Your task to perform on an android device: delete location history Image 0: 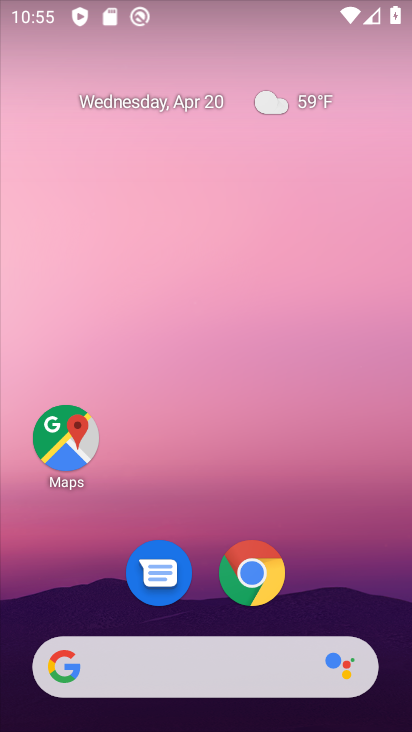
Step 0: drag from (382, 617) to (387, 470)
Your task to perform on an android device: delete location history Image 1: 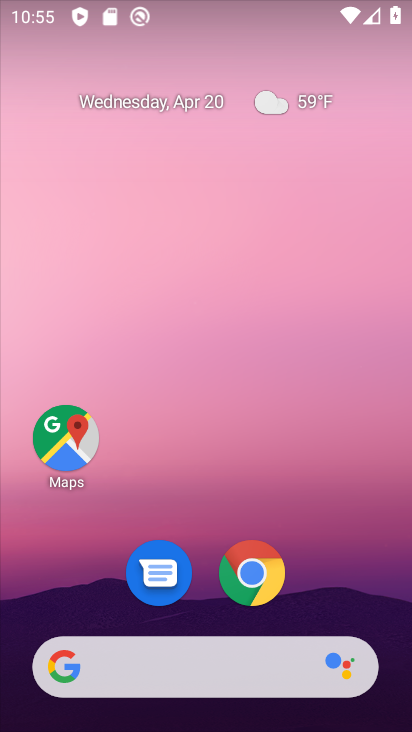
Step 1: click (63, 438)
Your task to perform on an android device: delete location history Image 2: 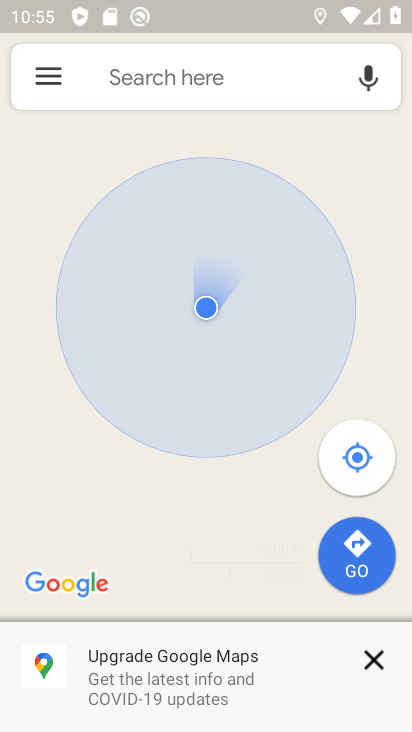
Step 2: click (55, 78)
Your task to perform on an android device: delete location history Image 3: 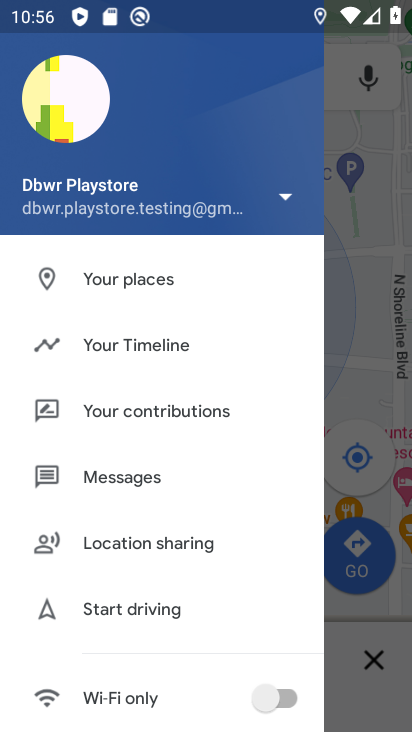
Step 3: click (126, 349)
Your task to perform on an android device: delete location history Image 4: 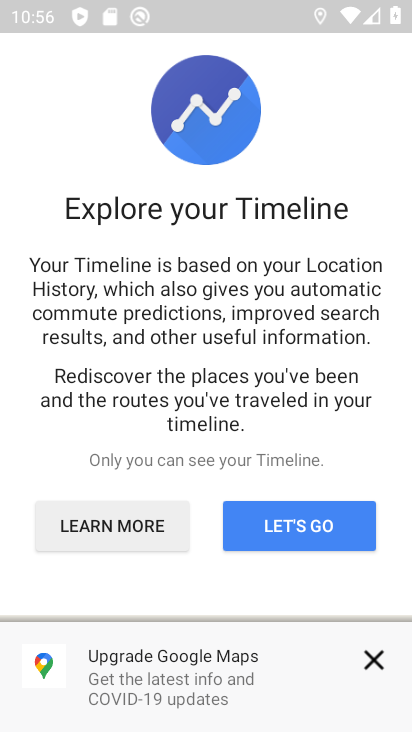
Step 4: click (285, 523)
Your task to perform on an android device: delete location history Image 5: 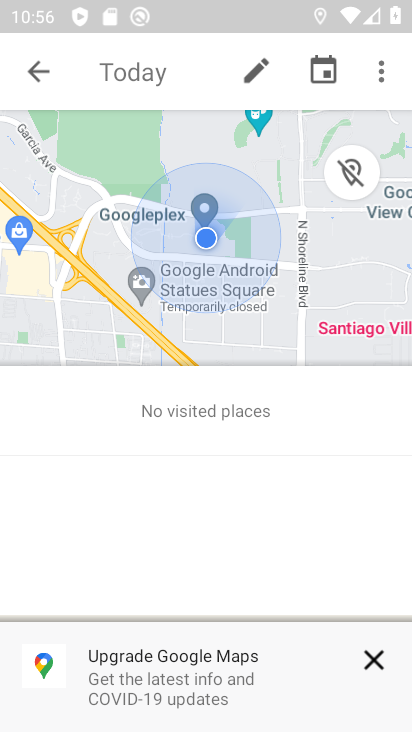
Step 5: click (378, 71)
Your task to perform on an android device: delete location history Image 6: 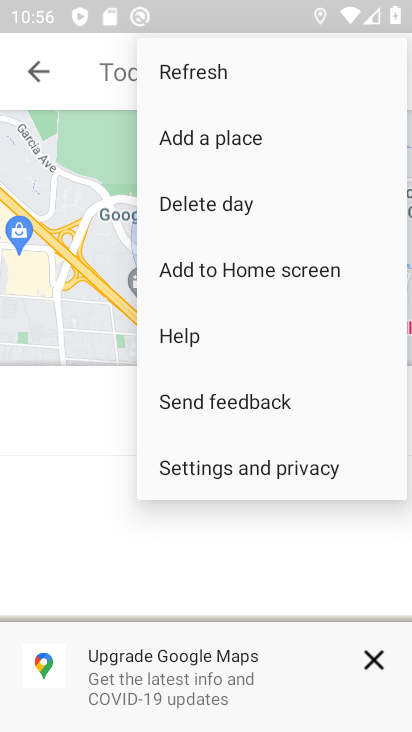
Step 6: click (256, 471)
Your task to perform on an android device: delete location history Image 7: 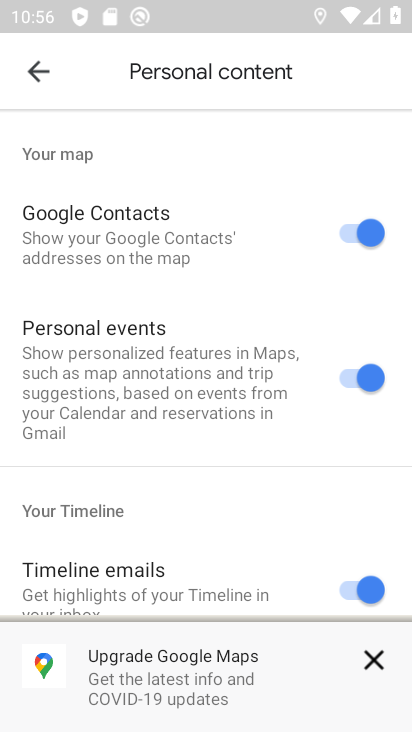
Step 7: drag from (194, 526) to (172, 163)
Your task to perform on an android device: delete location history Image 8: 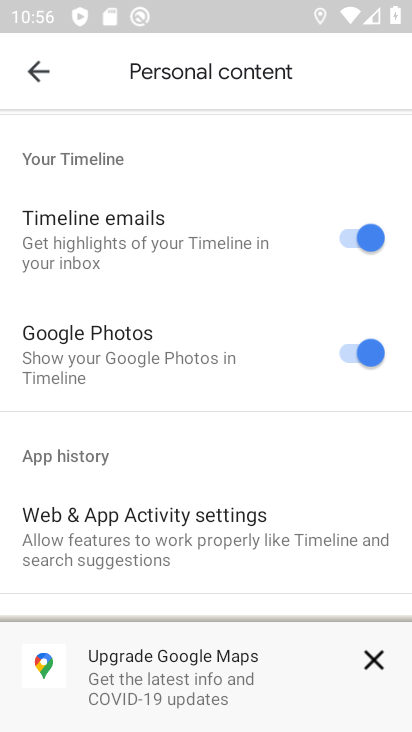
Step 8: drag from (173, 496) to (172, 109)
Your task to perform on an android device: delete location history Image 9: 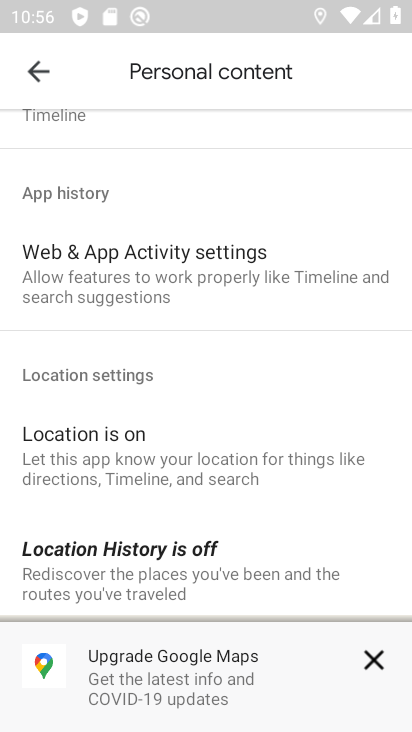
Step 9: drag from (213, 475) to (223, 178)
Your task to perform on an android device: delete location history Image 10: 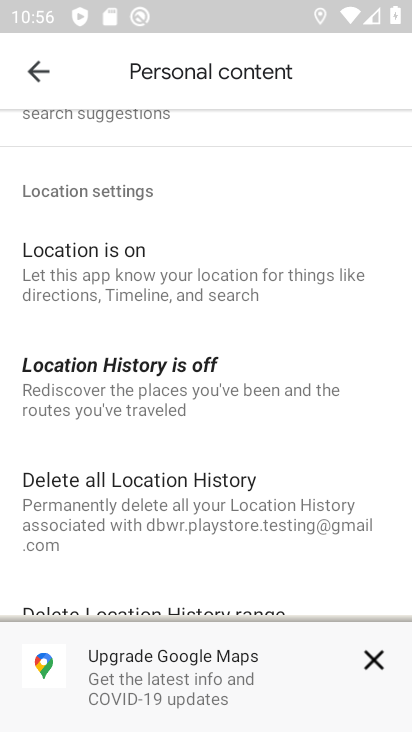
Step 10: click (116, 495)
Your task to perform on an android device: delete location history Image 11: 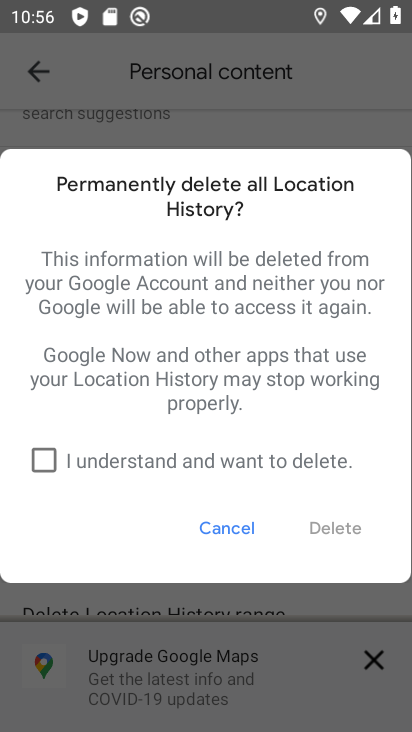
Step 11: click (48, 459)
Your task to perform on an android device: delete location history Image 12: 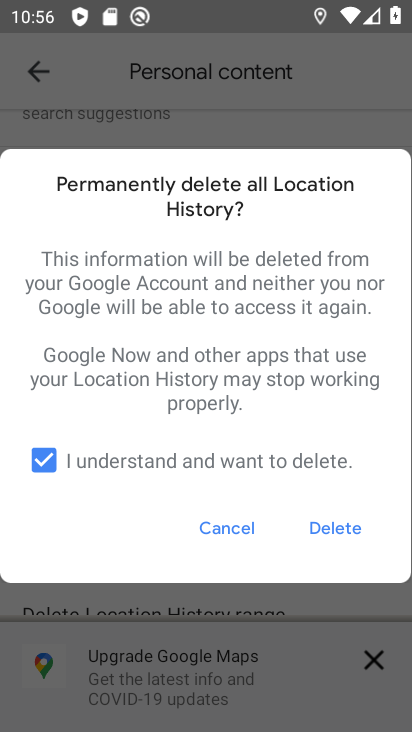
Step 12: click (337, 535)
Your task to perform on an android device: delete location history Image 13: 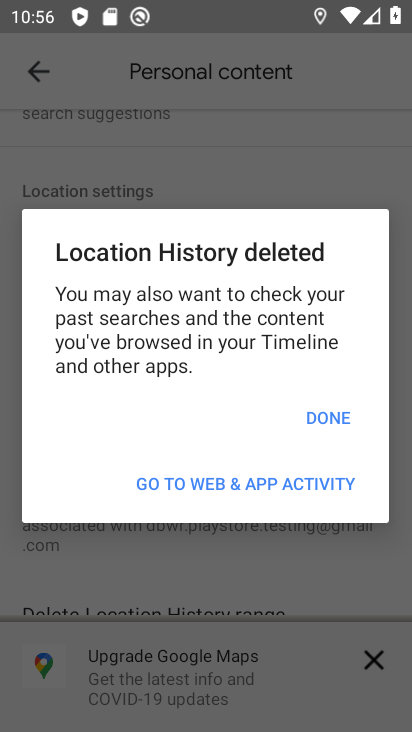
Step 13: click (327, 410)
Your task to perform on an android device: delete location history Image 14: 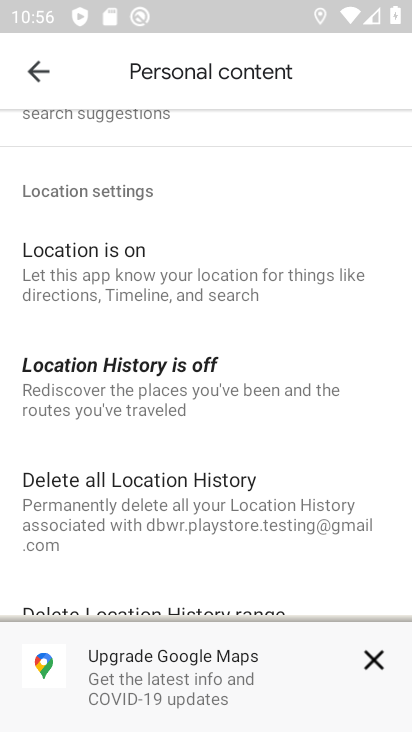
Step 14: task complete